Your task to perform on an android device: Open eBay Image 0: 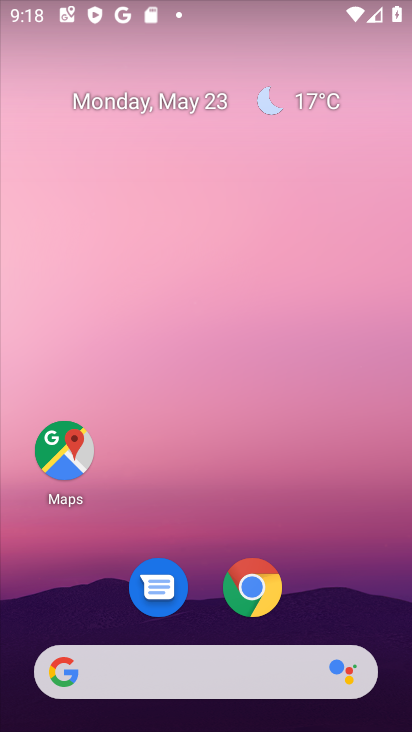
Step 0: drag from (320, 8) to (341, 47)
Your task to perform on an android device: Open eBay Image 1: 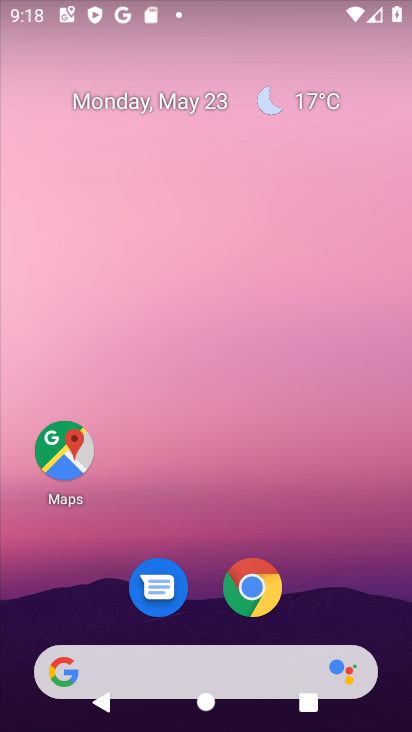
Step 1: click (241, 611)
Your task to perform on an android device: Open eBay Image 2: 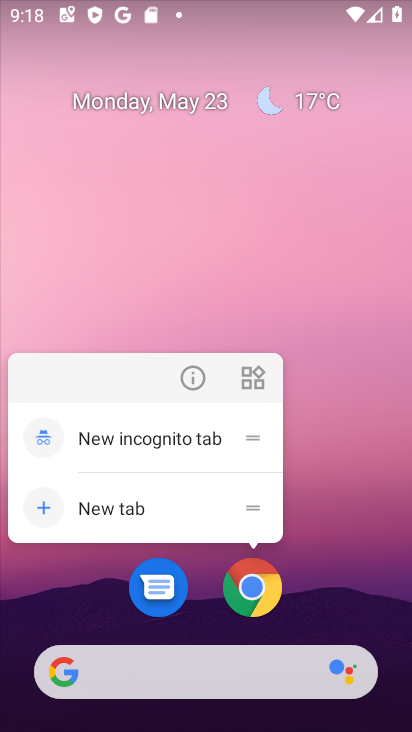
Step 2: click (265, 582)
Your task to perform on an android device: Open eBay Image 3: 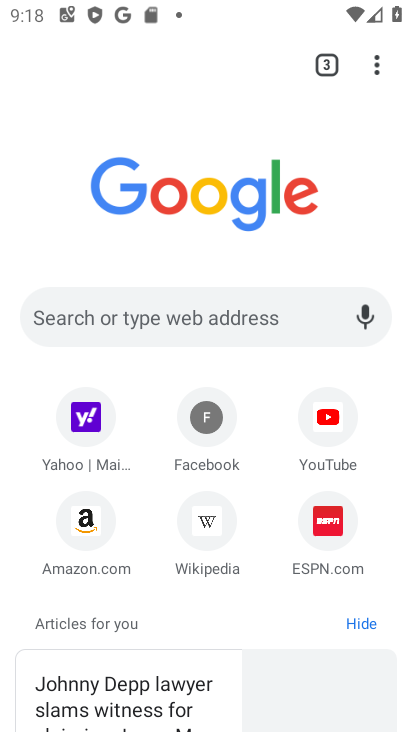
Step 3: click (154, 319)
Your task to perform on an android device: Open eBay Image 4: 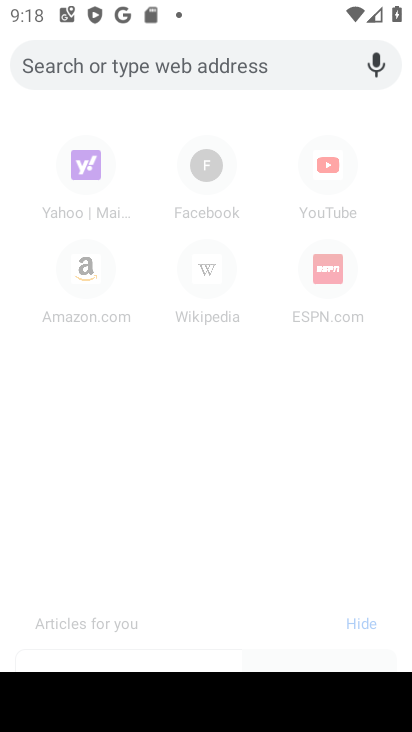
Step 4: type "ebay"
Your task to perform on an android device: Open eBay Image 5: 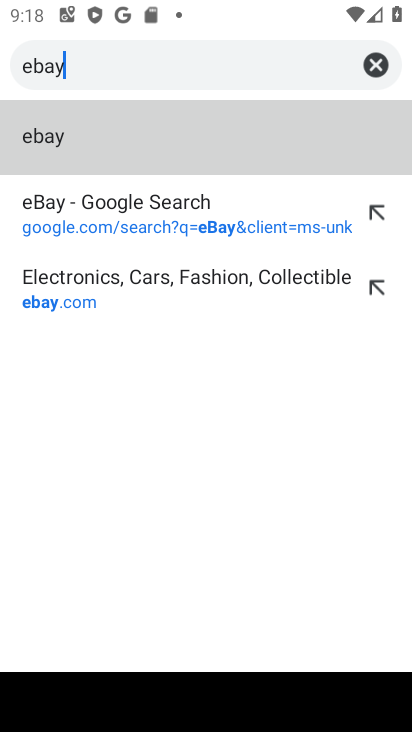
Step 5: click (58, 276)
Your task to perform on an android device: Open eBay Image 6: 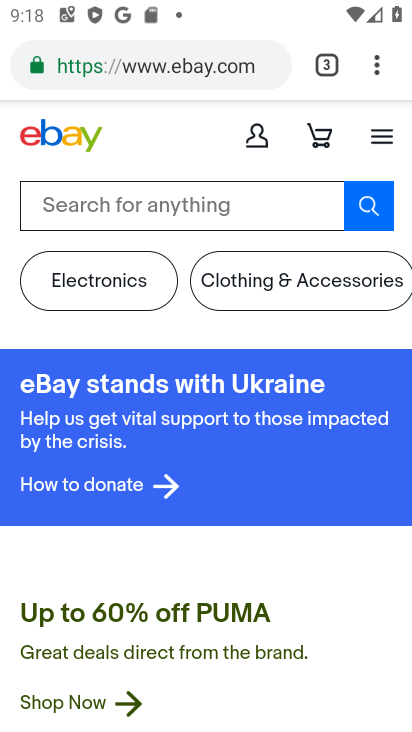
Step 6: task complete